Your task to perform on an android device: Show me recent news Image 0: 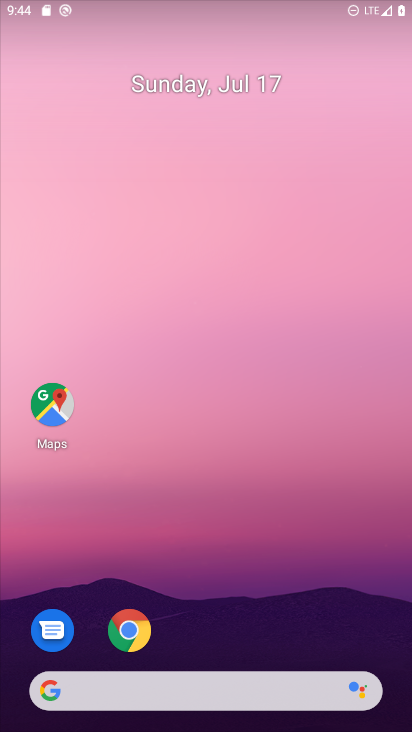
Step 0: drag from (360, 636) to (199, 45)
Your task to perform on an android device: Show me recent news Image 1: 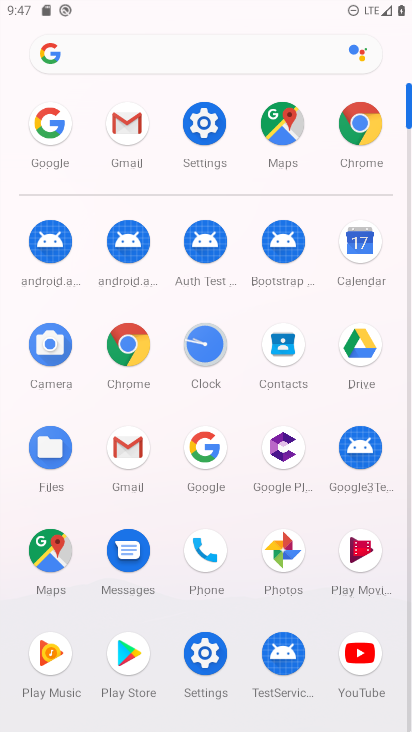
Step 1: click (208, 443)
Your task to perform on an android device: Show me recent news Image 2: 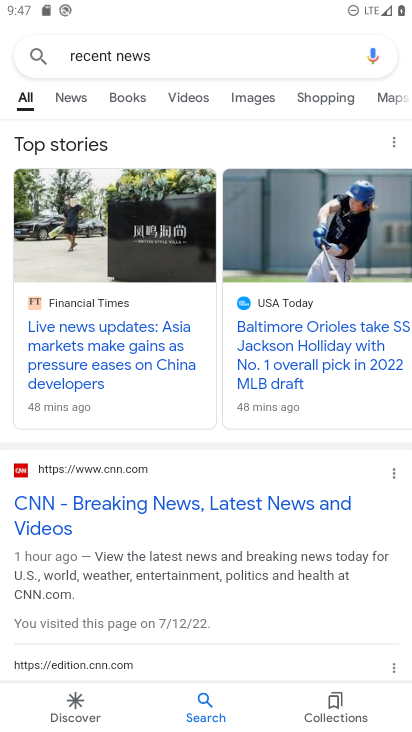
Step 2: task complete